Your task to perform on an android device: Open calendar and show me the second week of next month Image 0: 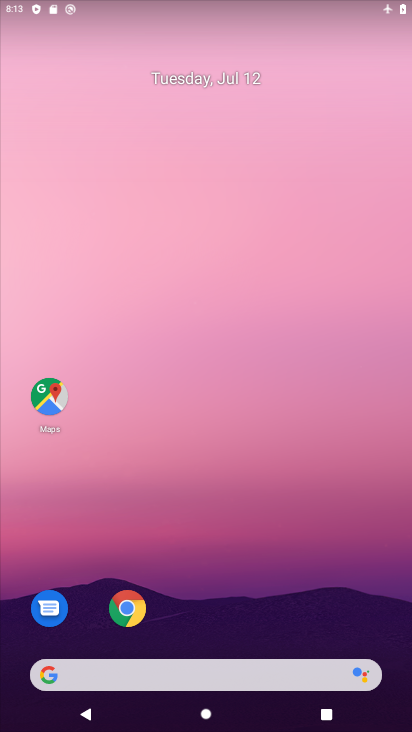
Step 0: drag from (195, 634) to (124, 30)
Your task to perform on an android device: Open calendar and show me the second week of next month Image 1: 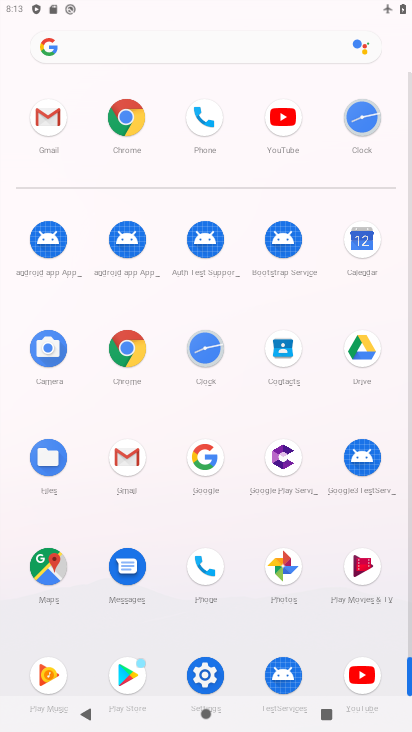
Step 1: click (357, 257)
Your task to perform on an android device: Open calendar and show me the second week of next month Image 2: 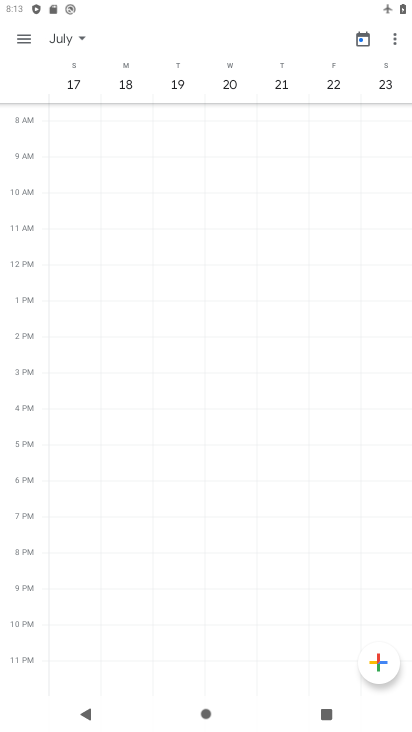
Step 2: task complete